Your task to perform on an android device: What is the recent news? Image 0: 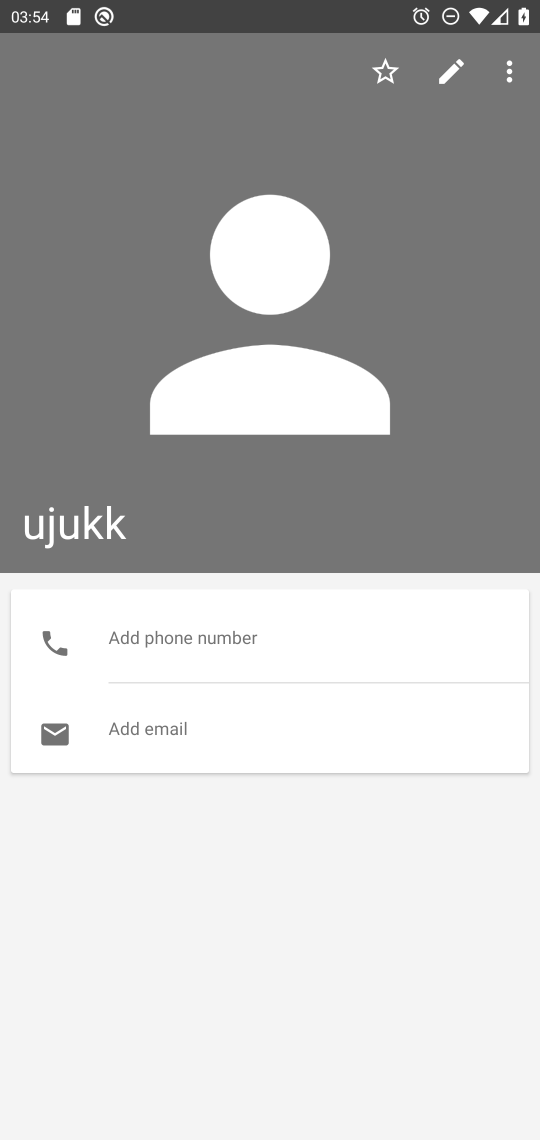
Step 0: press home button
Your task to perform on an android device: What is the recent news? Image 1: 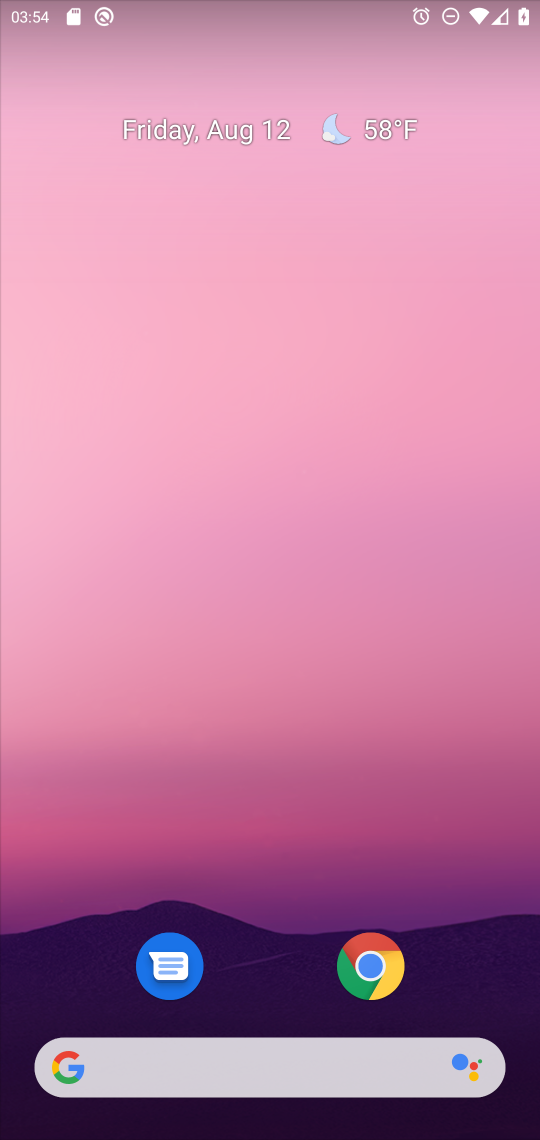
Step 1: drag from (281, 887) to (449, 101)
Your task to perform on an android device: What is the recent news? Image 2: 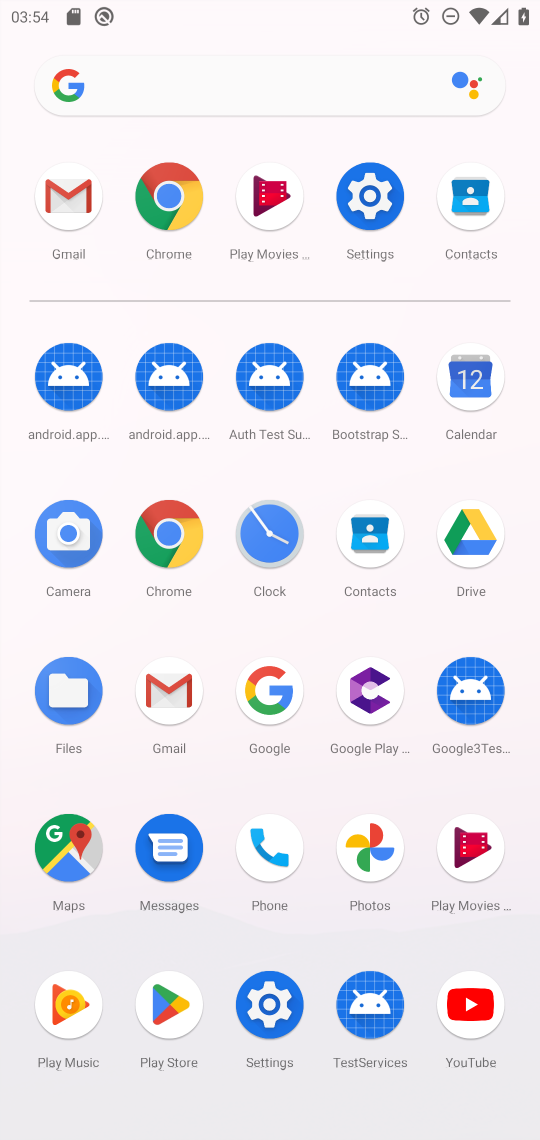
Step 2: click (165, 534)
Your task to perform on an android device: What is the recent news? Image 3: 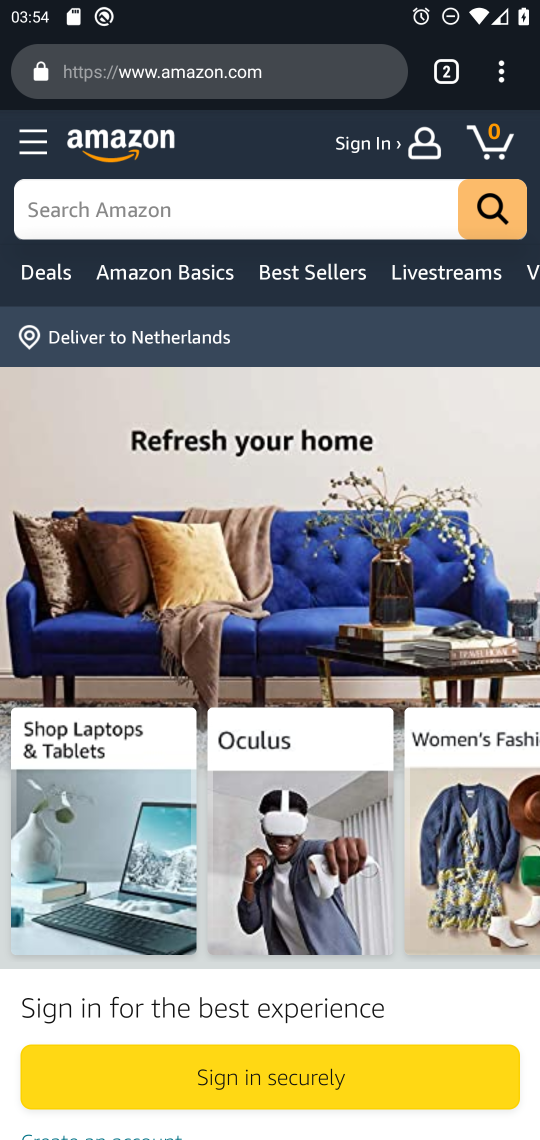
Step 3: click (293, 67)
Your task to perform on an android device: What is the recent news? Image 4: 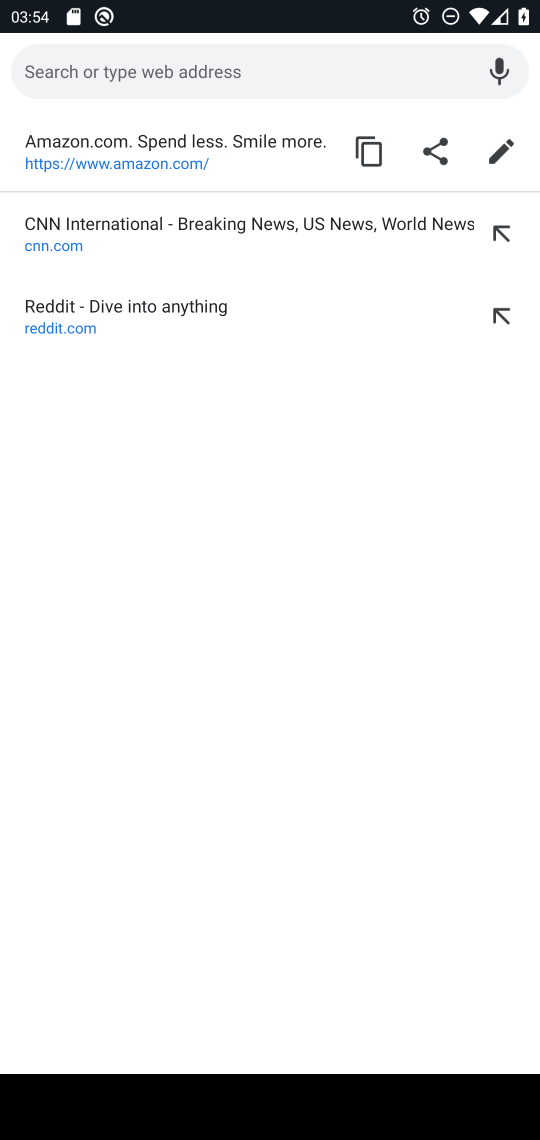
Step 4: type "news"
Your task to perform on an android device: What is the recent news? Image 5: 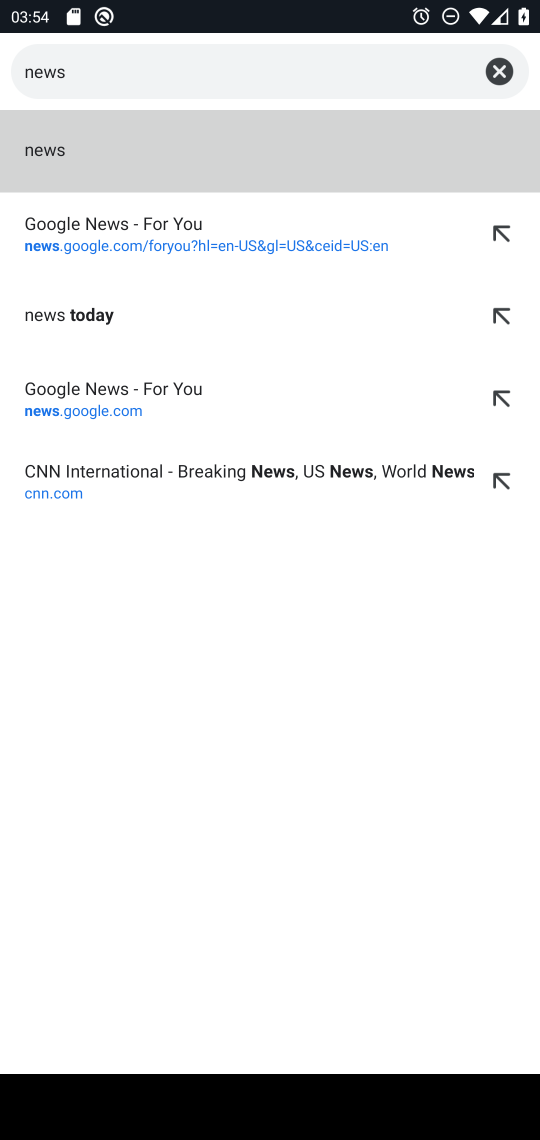
Step 5: click (99, 157)
Your task to perform on an android device: What is the recent news? Image 6: 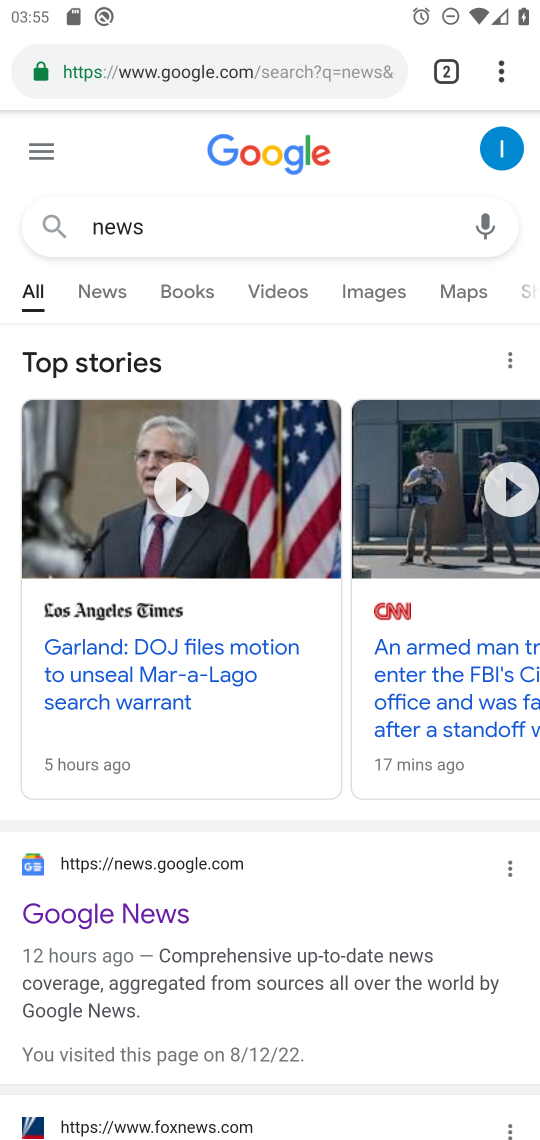
Step 6: click (124, 904)
Your task to perform on an android device: What is the recent news? Image 7: 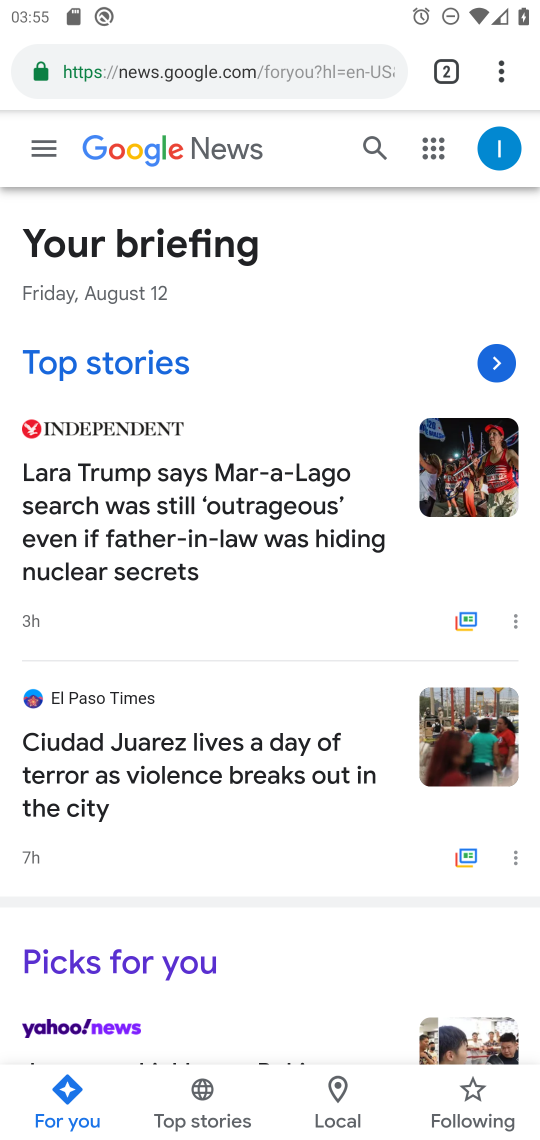
Step 7: task complete